Your task to perform on an android device: Open Google Chrome and open the bookmarks view Image 0: 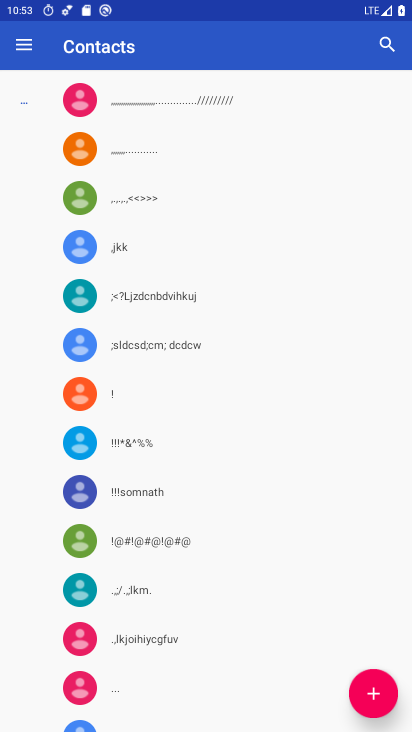
Step 0: press home button
Your task to perform on an android device: Open Google Chrome and open the bookmarks view Image 1: 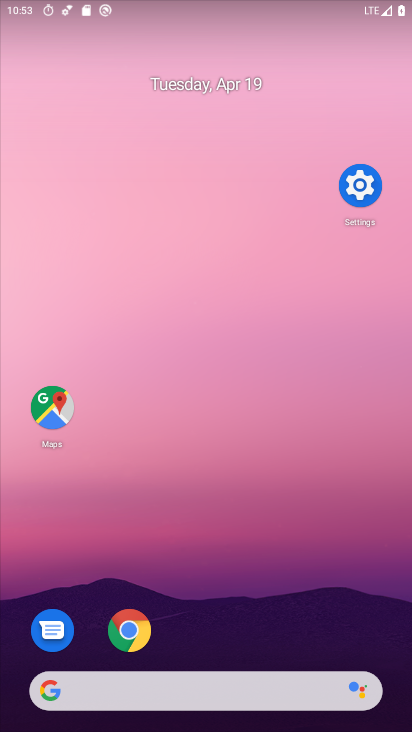
Step 1: drag from (238, 496) to (320, 134)
Your task to perform on an android device: Open Google Chrome and open the bookmarks view Image 2: 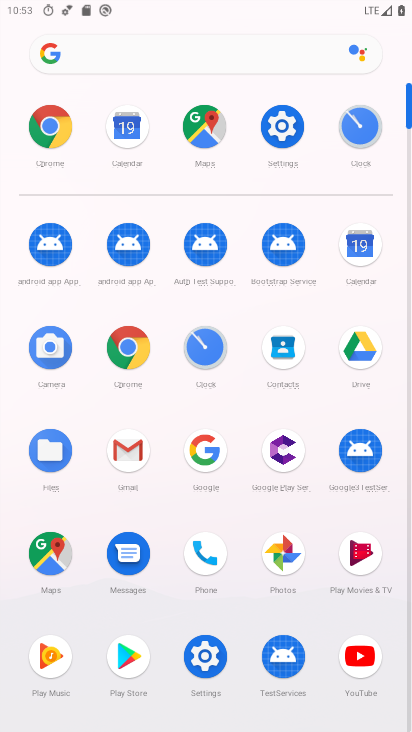
Step 2: click (141, 348)
Your task to perform on an android device: Open Google Chrome and open the bookmarks view Image 3: 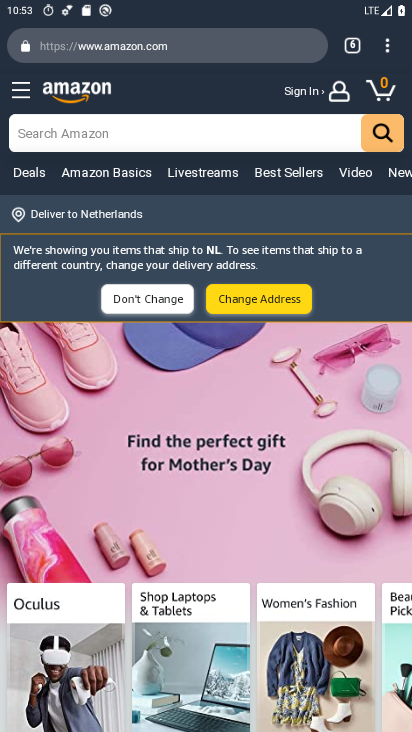
Step 3: click (392, 47)
Your task to perform on an android device: Open Google Chrome and open the bookmarks view Image 4: 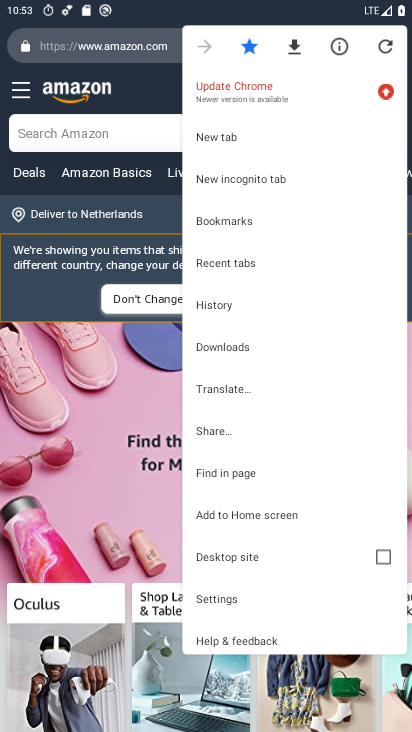
Step 4: click (227, 228)
Your task to perform on an android device: Open Google Chrome and open the bookmarks view Image 5: 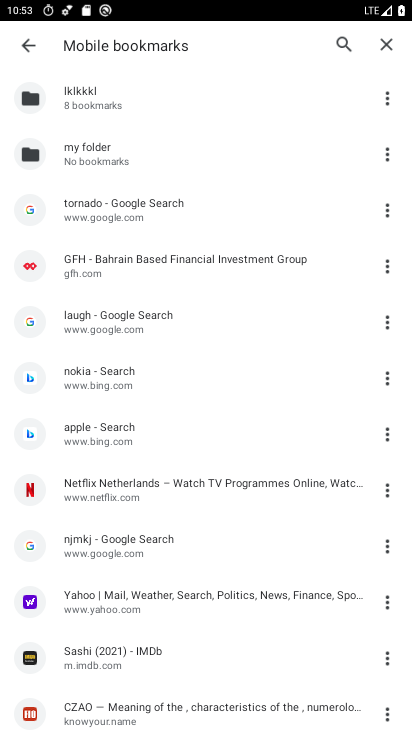
Step 5: task complete